Your task to perform on an android device: change notifications settings Image 0: 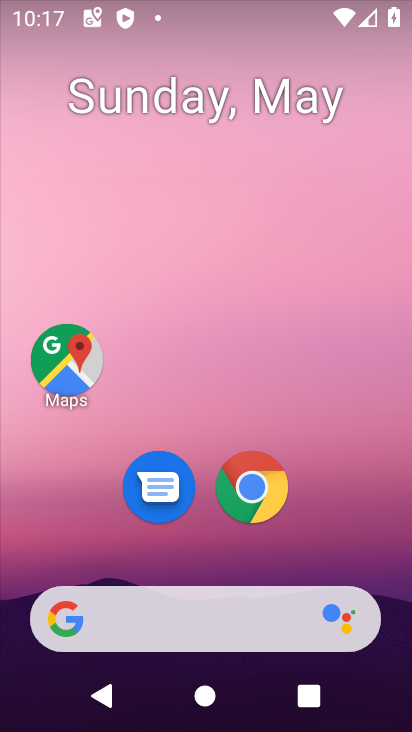
Step 0: drag from (375, 540) to (310, 91)
Your task to perform on an android device: change notifications settings Image 1: 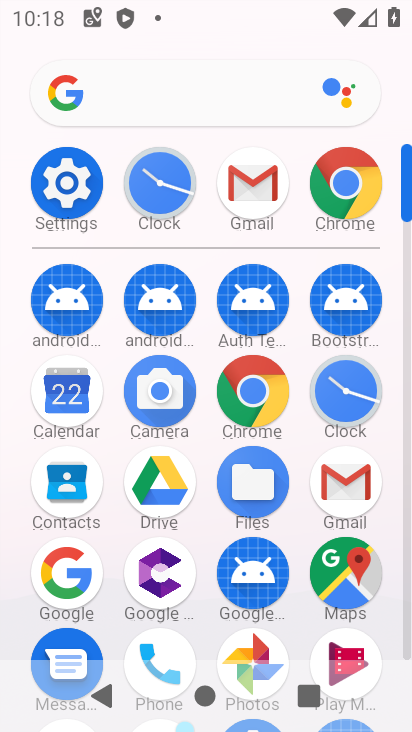
Step 1: click (79, 194)
Your task to perform on an android device: change notifications settings Image 2: 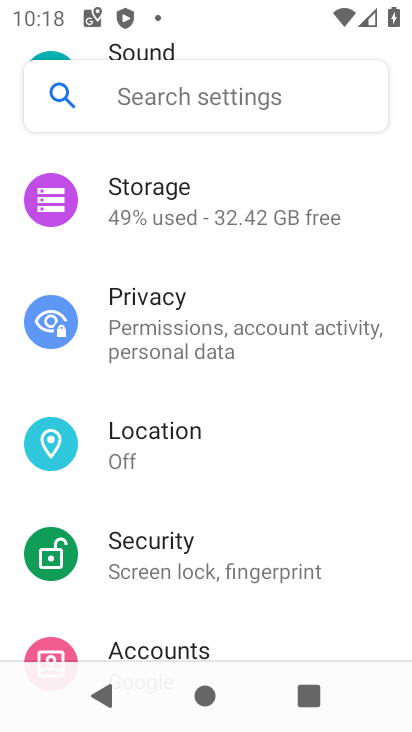
Step 2: drag from (350, 559) to (346, 408)
Your task to perform on an android device: change notifications settings Image 3: 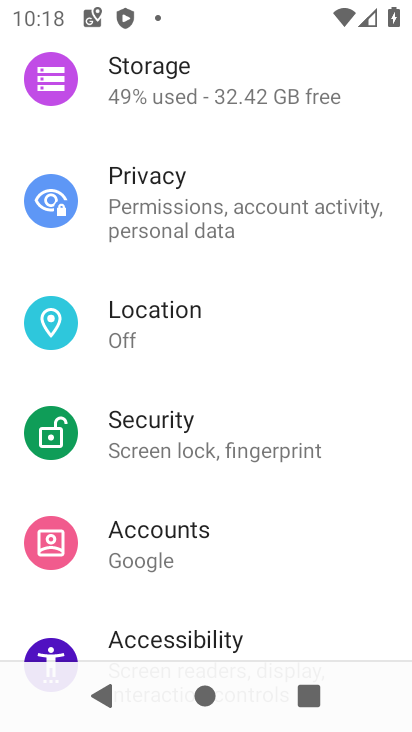
Step 3: drag from (354, 534) to (353, 364)
Your task to perform on an android device: change notifications settings Image 4: 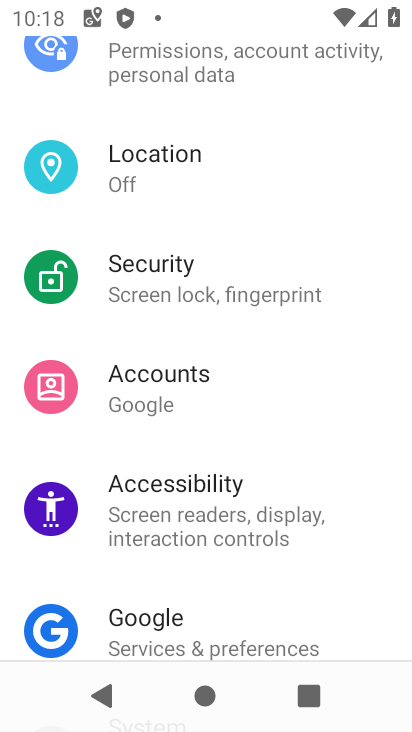
Step 4: drag from (384, 563) to (363, 436)
Your task to perform on an android device: change notifications settings Image 5: 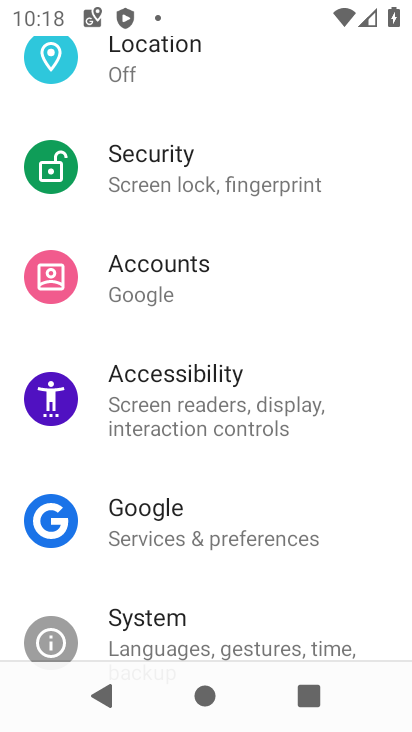
Step 5: drag from (349, 305) to (347, 489)
Your task to perform on an android device: change notifications settings Image 6: 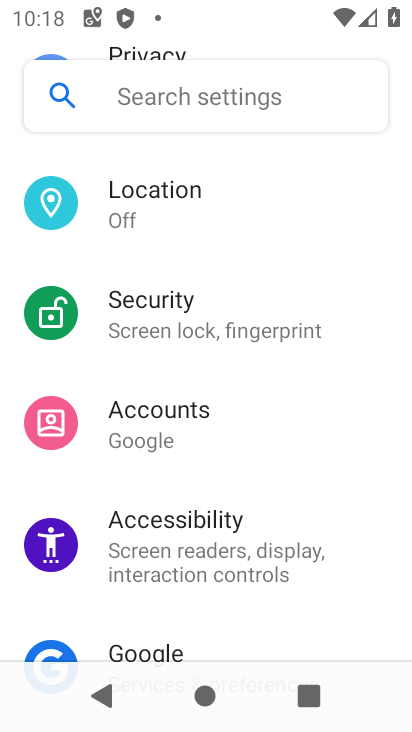
Step 6: drag from (358, 294) to (353, 463)
Your task to perform on an android device: change notifications settings Image 7: 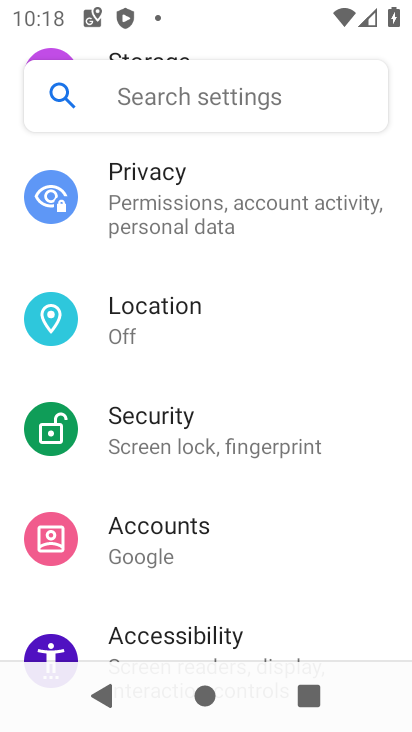
Step 7: drag from (375, 303) to (337, 491)
Your task to perform on an android device: change notifications settings Image 8: 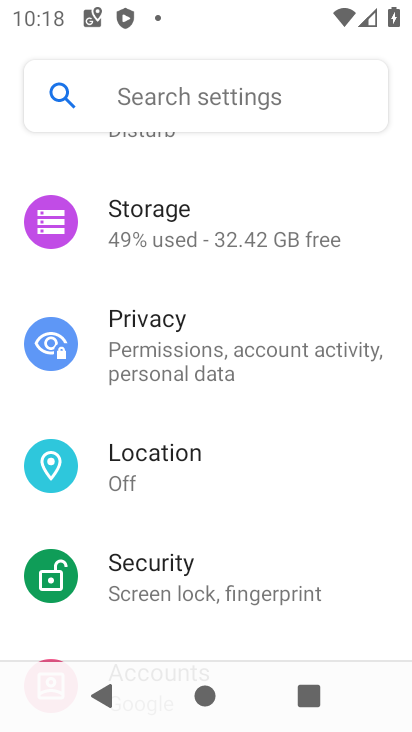
Step 8: drag from (327, 281) to (295, 507)
Your task to perform on an android device: change notifications settings Image 9: 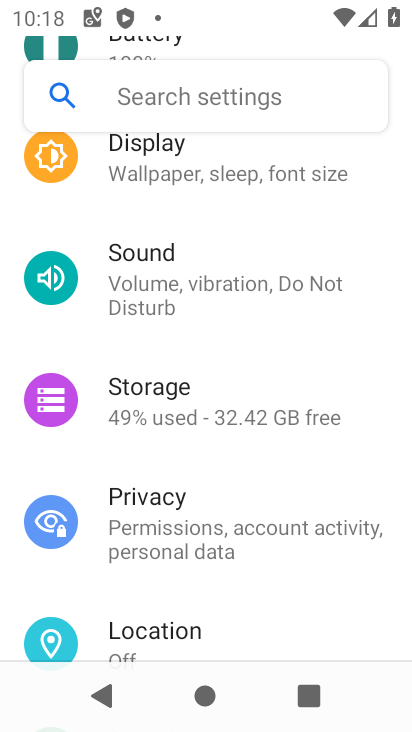
Step 9: drag from (295, 216) to (281, 460)
Your task to perform on an android device: change notifications settings Image 10: 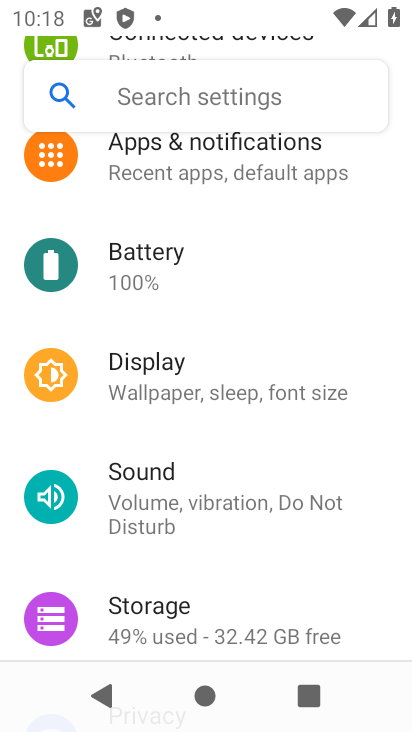
Step 10: drag from (319, 272) to (304, 395)
Your task to perform on an android device: change notifications settings Image 11: 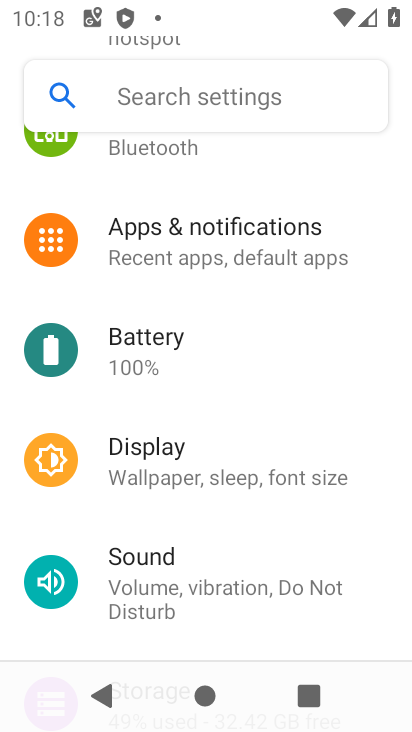
Step 11: click (280, 234)
Your task to perform on an android device: change notifications settings Image 12: 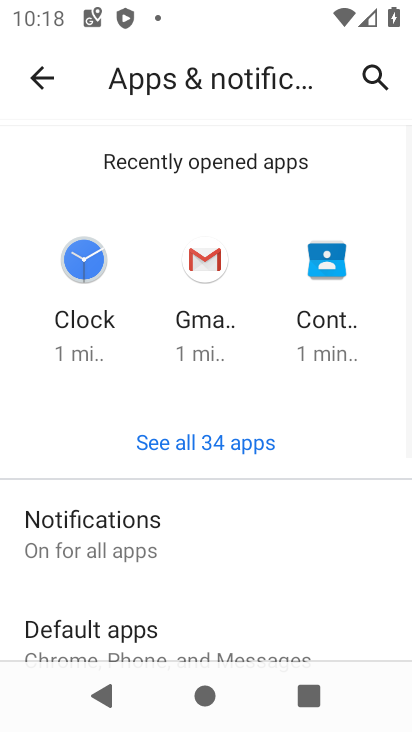
Step 12: click (162, 541)
Your task to perform on an android device: change notifications settings Image 13: 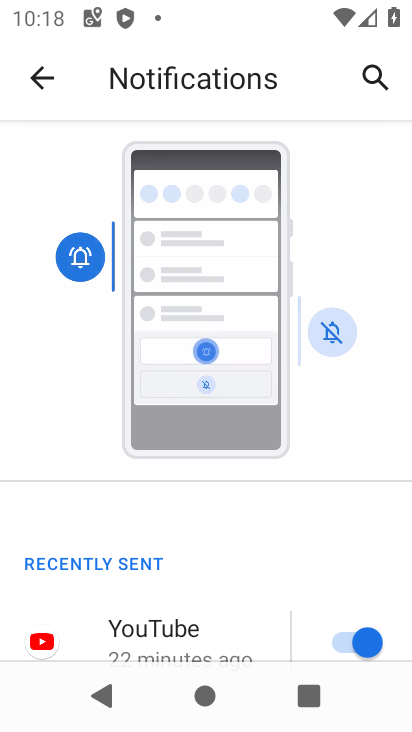
Step 13: drag from (252, 537) to (263, 362)
Your task to perform on an android device: change notifications settings Image 14: 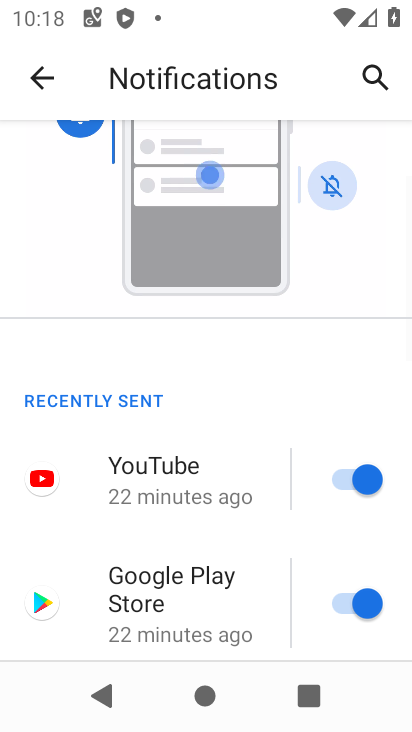
Step 14: drag from (263, 603) to (270, 433)
Your task to perform on an android device: change notifications settings Image 15: 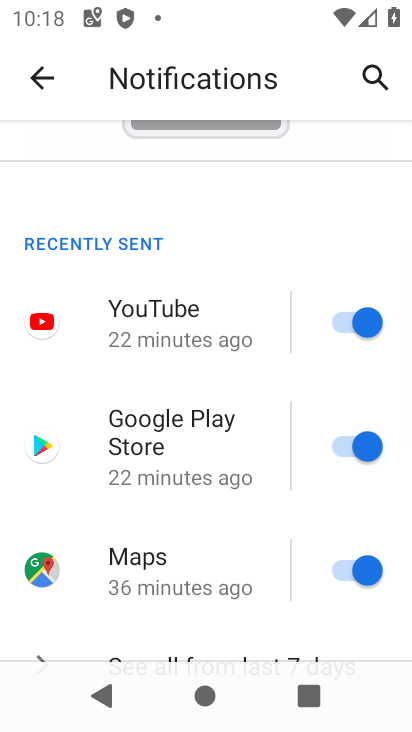
Step 15: drag from (273, 586) to (276, 434)
Your task to perform on an android device: change notifications settings Image 16: 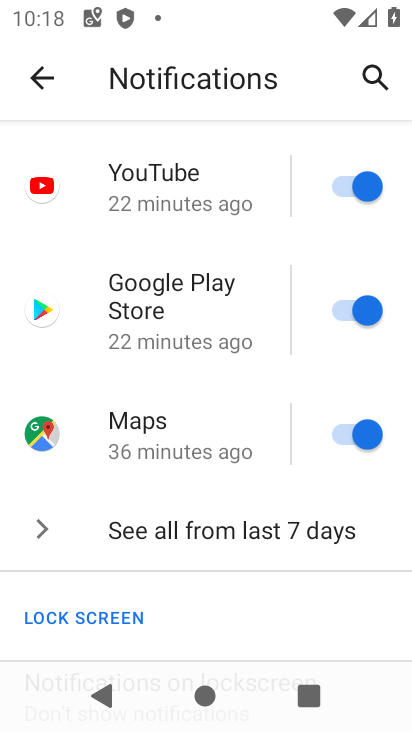
Step 16: click (366, 428)
Your task to perform on an android device: change notifications settings Image 17: 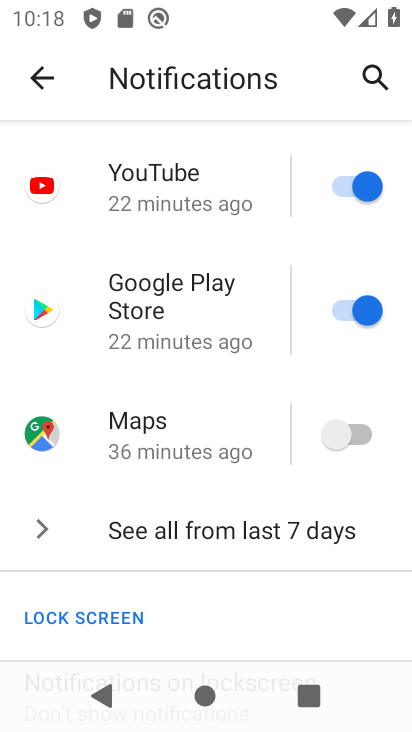
Step 17: click (359, 336)
Your task to perform on an android device: change notifications settings Image 18: 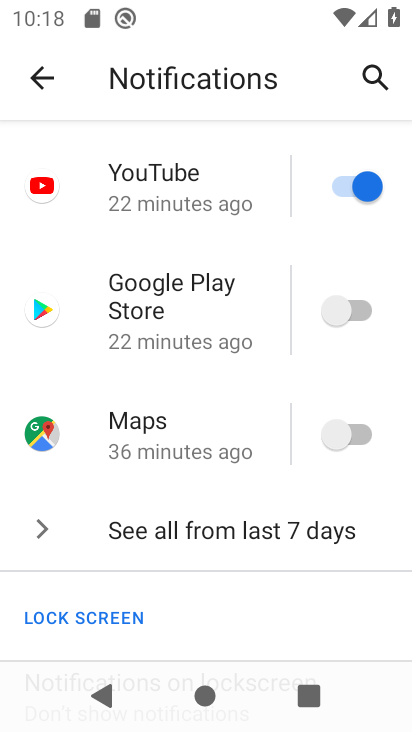
Step 18: click (379, 176)
Your task to perform on an android device: change notifications settings Image 19: 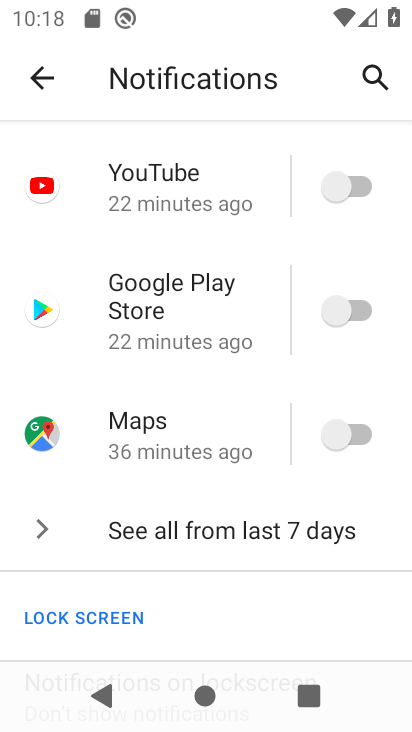
Step 19: task complete